Your task to perform on an android device: Go to Google Image 0: 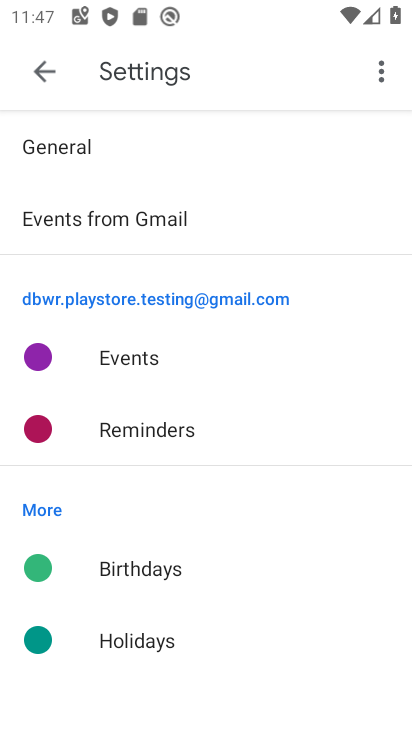
Step 0: press back button
Your task to perform on an android device: Go to Google Image 1: 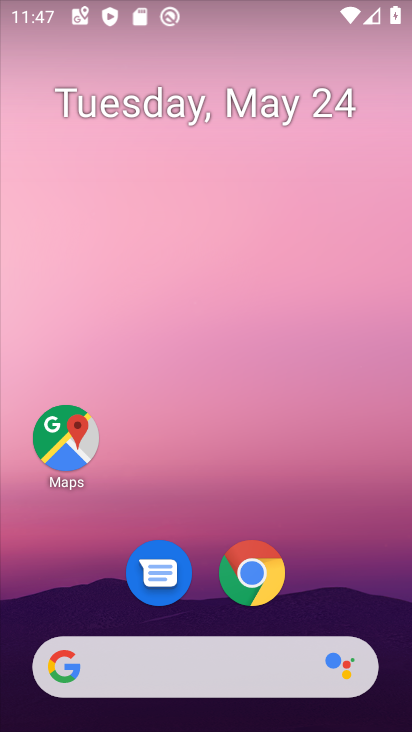
Step 1: drag from (306, 474) to (253, 40)
Your task to perform on an android device: Go to Google Image 2: 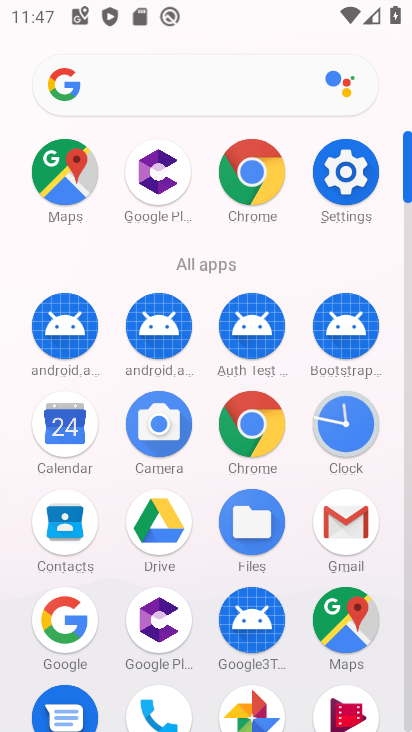
Step 2: drag from (2, 570) to (4, 240)
Your task to perform on an android device: Go to Google Image 3: 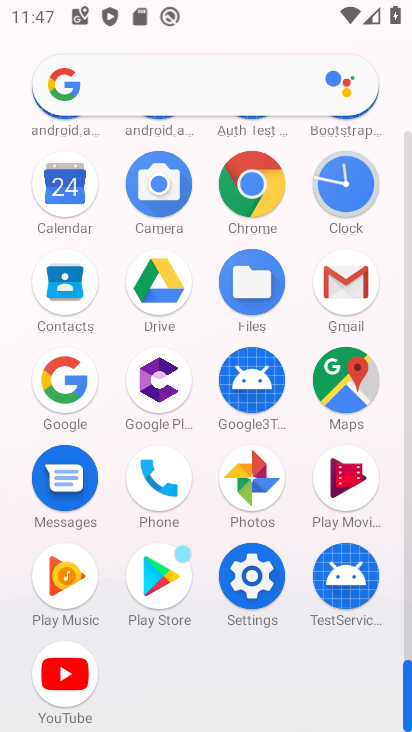
Step 3: click (249, 182)
Your task to perform on an android device: Go to Google Image 4: 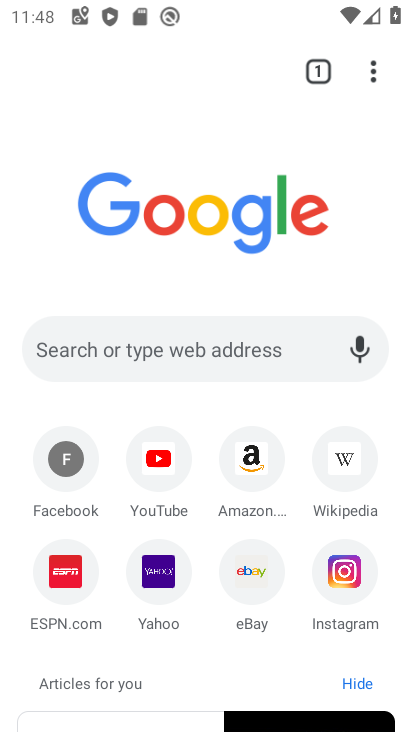
Step 4: click (96, 349)
Your task to perform on an android device: Go to Google Image 5: 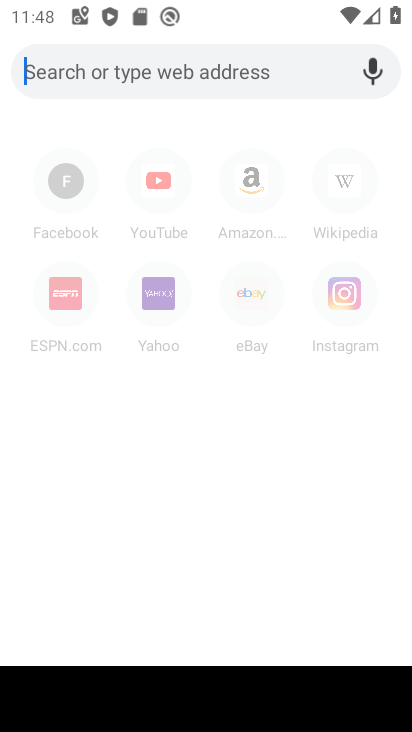
Step 5: type "Google"
Your task to perform on an android device: Go to Google Image 6: 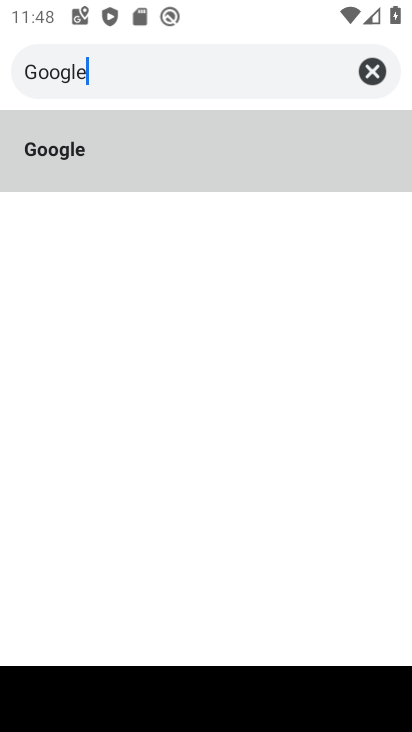
Step 6: type ""
Your task to perform on an android device: Go to Google Image 7: 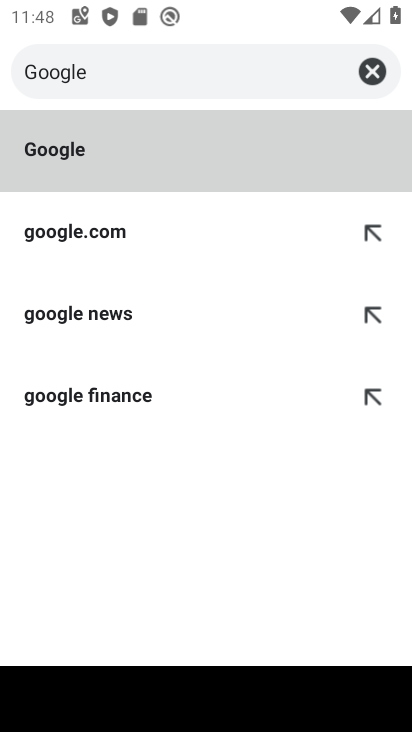
Step 7: click (72, 236)
Your task to perform on an android device: Go to Google Image 8: 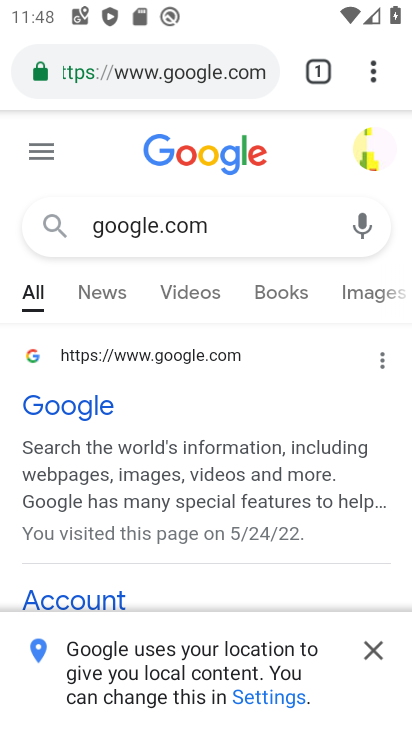
Step 8: click (102, 405)
Your task to perform on an android device: Go to Google Image 9: 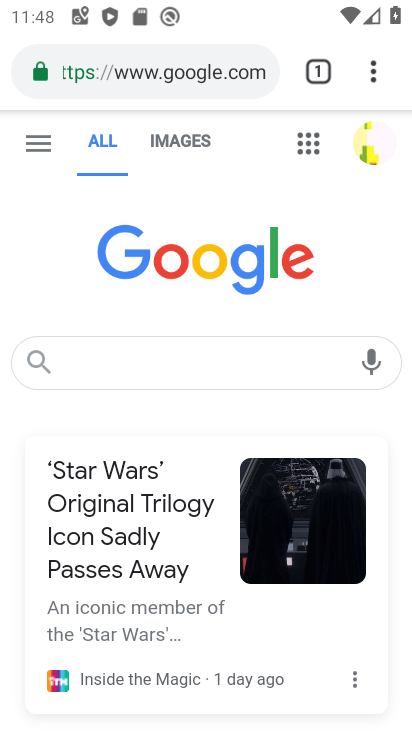
Step 9: task complete